Your task to perform on an android device: Open Google Maps and go to "Timeline" Image 0: 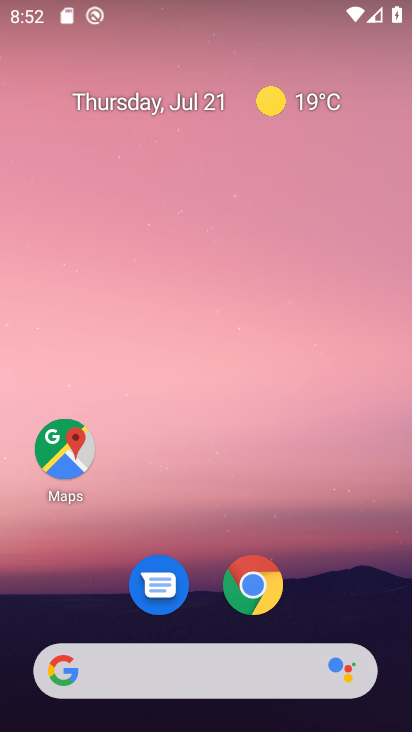
Step 0: click (65, 452)
Your task to perform on an android device: Open Google Maps and go to "Timeline" Image 1: 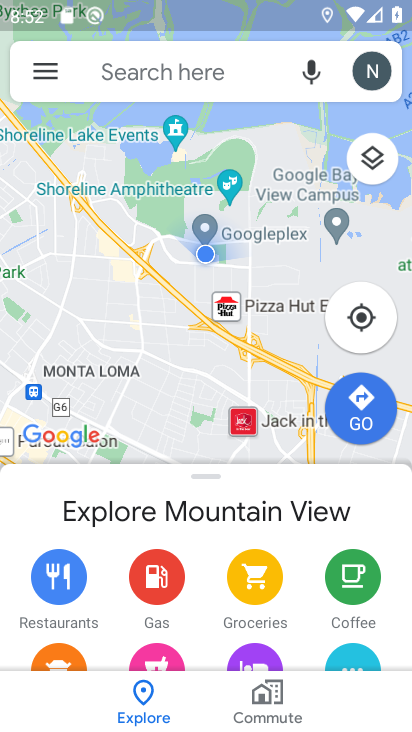
Step 1: click (45, 72)
Your task to perform on an android device: Open Google Maps and go to "Timeline" Image 2: 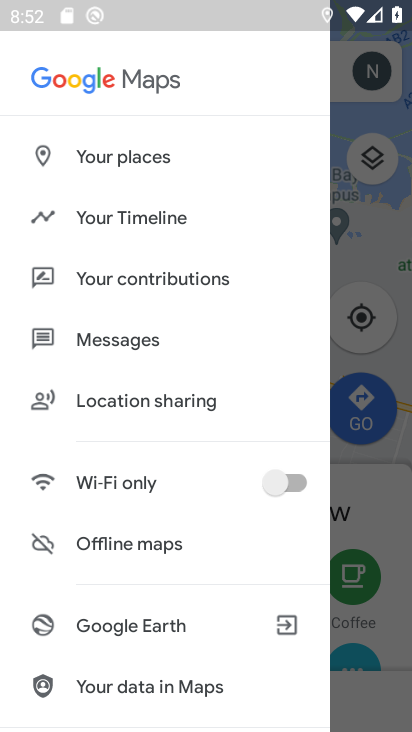
Step 2: click (133, 221)
Your task to perform on an android device: Open Google Maps and go to "Timeline" Image 3: 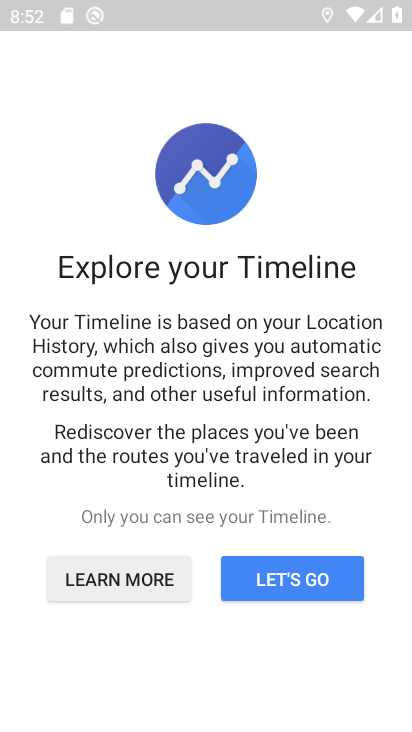
Step 3: click (318, 577)
Your task to perform on an android device: Open Google Maps and go to "Timeline" Image 4: 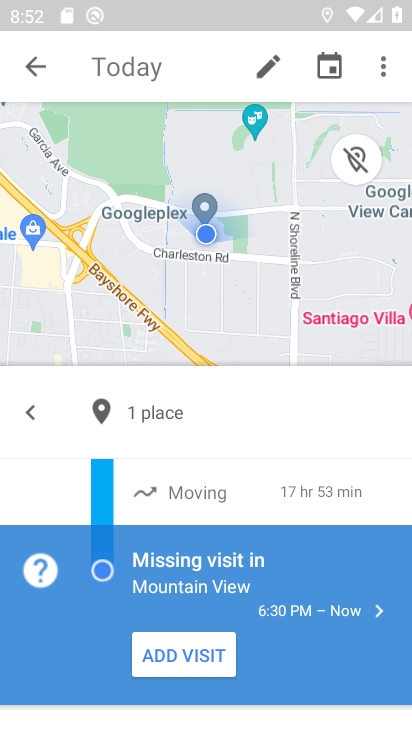
Step 4: task complete